Your task to perform on an android device: toggle location history Image 0: 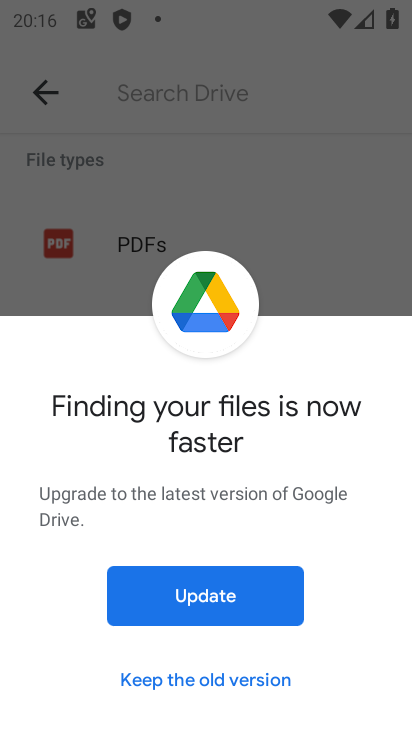
Step 0: press home button
Your task to perform on an android device: toggle location history Image 1: 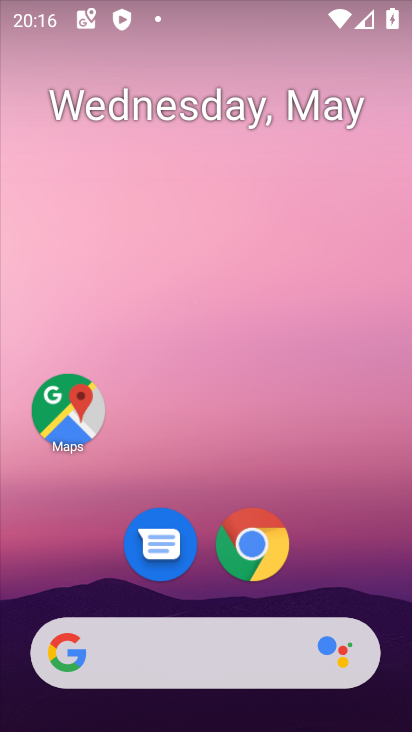
Step 1: drag from (308, 592) to (266, 122)
Your task to perform on an android device: toggle location history Image 2: 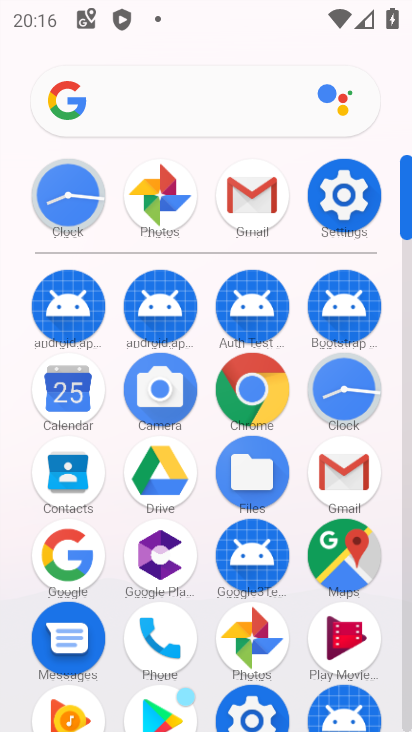
Step 2: click (366, 204)
Your task to perform on an android device: toggle location history Image 3: 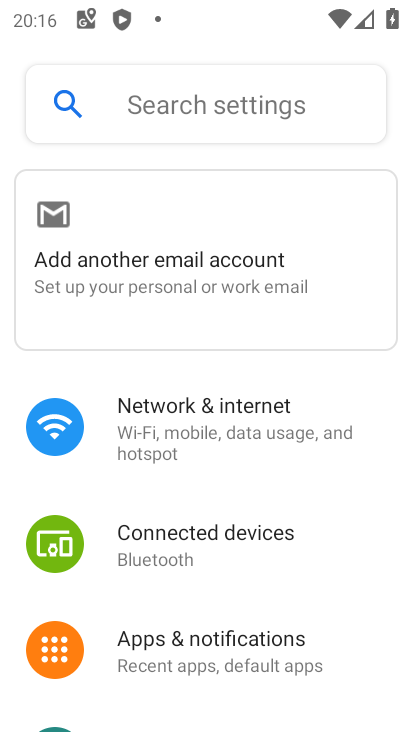
Step 3: drag from (134, 685) to (165, 229)
Your task to perform on an android device: toggle location history Image 4: 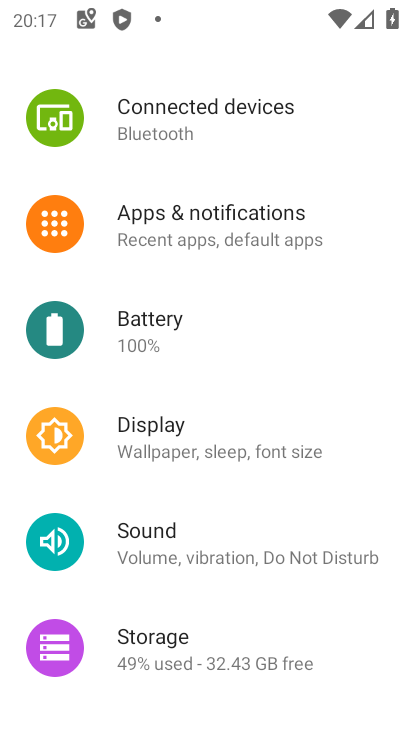
Step 4: drag from (187, 591) to (207, 179)
Your task to perform on an android device: toggle location history Image 5: 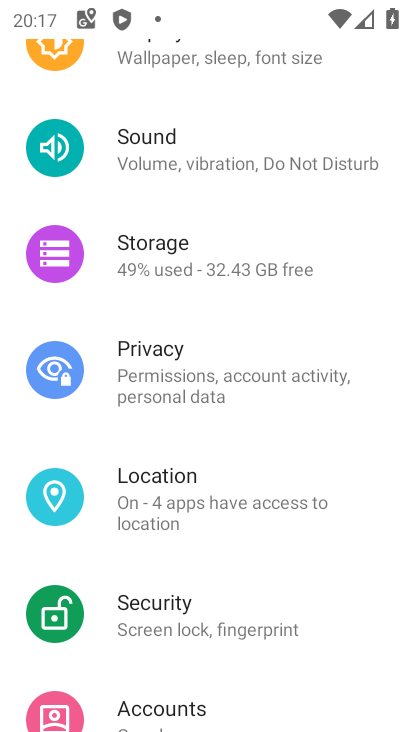
Step 5: click (176, 517)
Your task to perform on an android device: toggle location history Image 6: 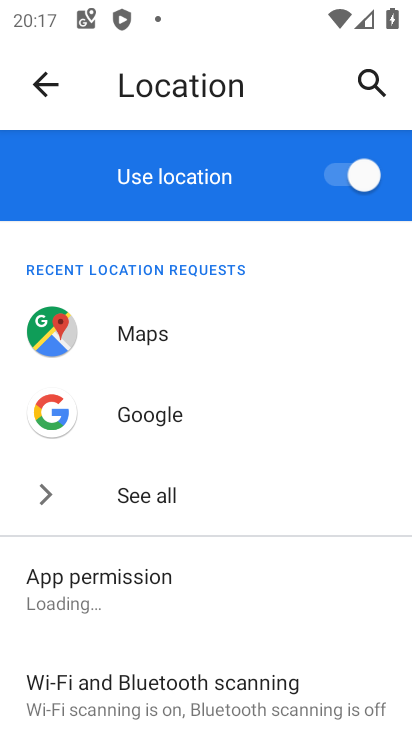
Step 6: drag from (91, 632) to (169, 217)
Your task to perform on an android device: toggle location history Image 7: 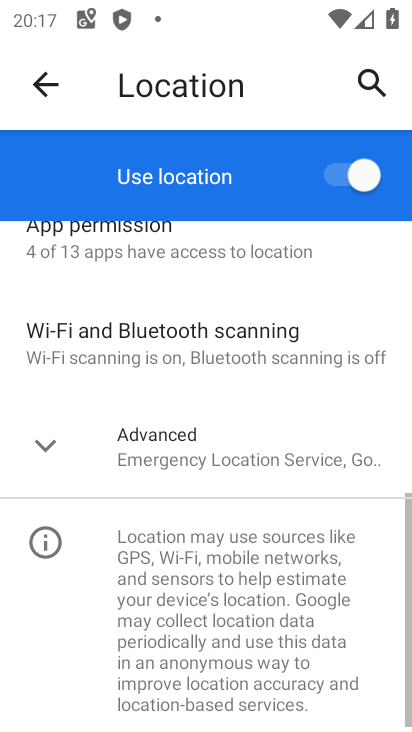
Step 7: click (250, 445)
Your task to perform on an android device: toggle location history Image 8: 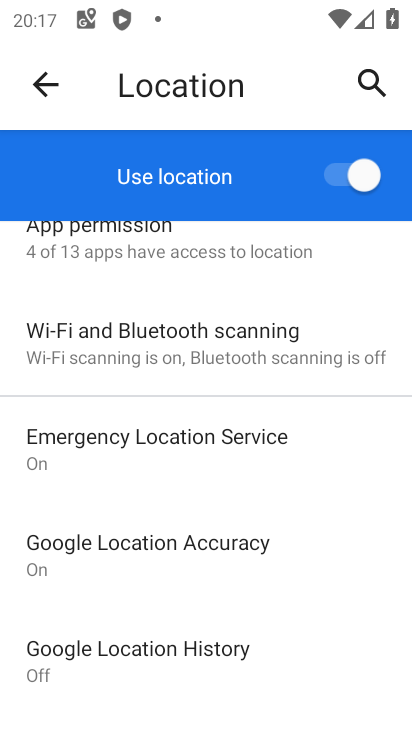
Step 8: click (199, 641)
Your task to perform on an android device: toggle location history Image 9: 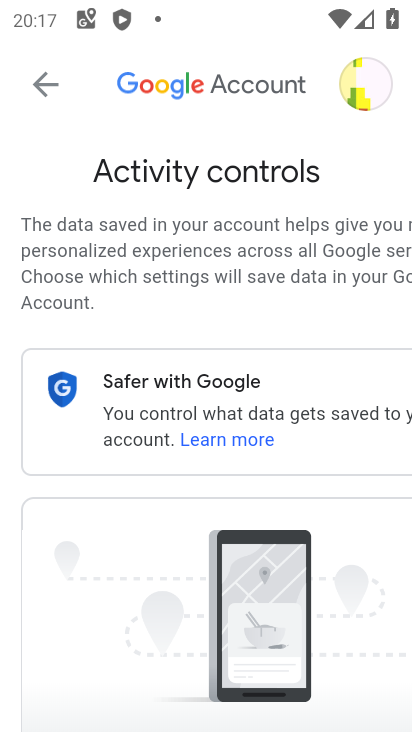
Step 9: drag from (75, 666) to (149, 39)
Your task to perform on an android device: toggle location history Image 10: 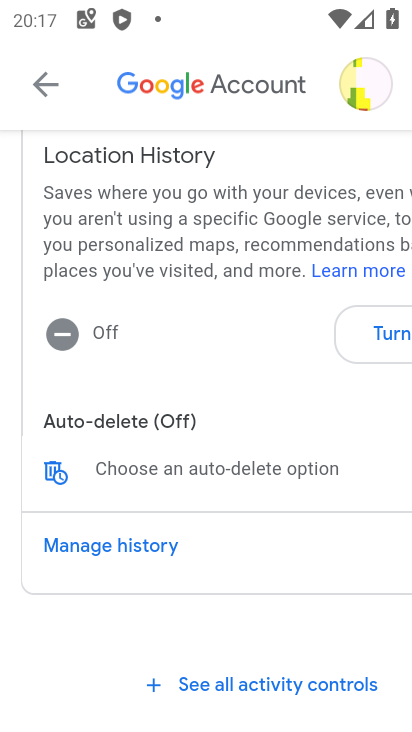
Step 10: click (385, 356)
Your task to perform on an android device: toggle location history Image 11: 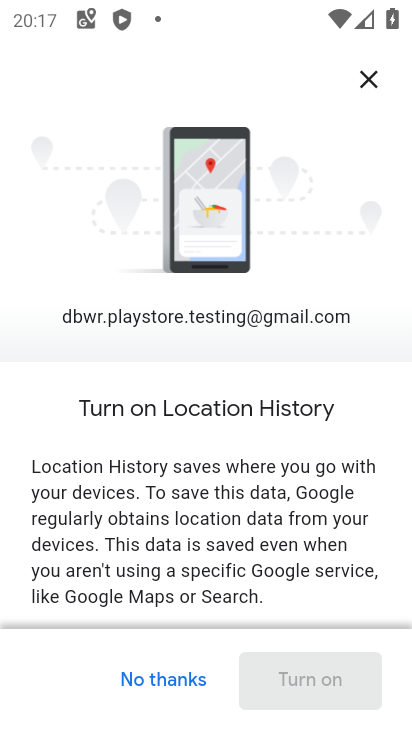
Step 11: drag from (213, 583) to (238, 125)
Your task to perform on an android device: toggle location history Image 12: 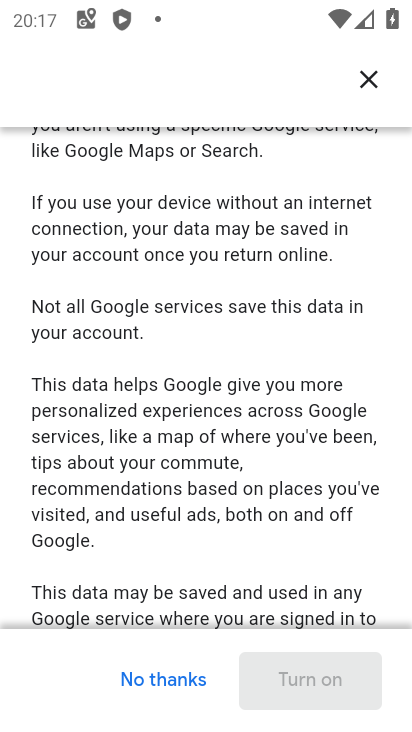
Step 12: drag from (150, 606) to (200, 216)
Your task to perform on an android device: toggle location history Image 13: 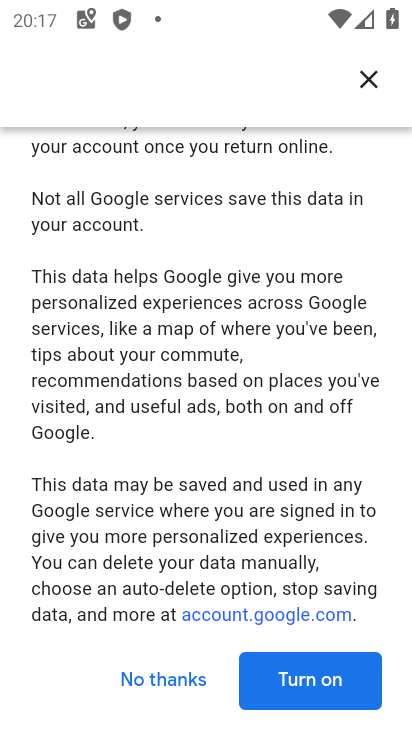
Step 13: click (344, 664)
Your task to perform on an android device: toggle location history Image 14: 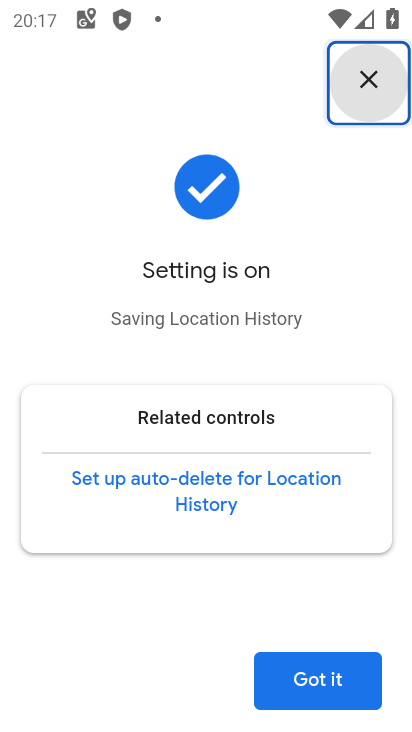
Step 14: click (344, 664)
Your task to perform on an android device: toggle location history Image 15: 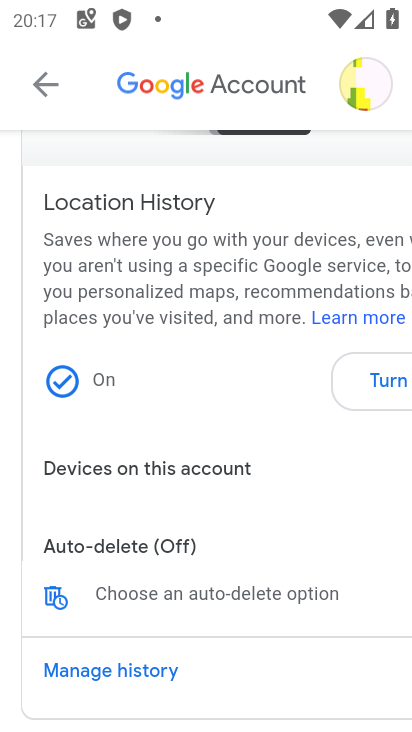
Step 15: task complete